Your task to perform on an android device: set default search engine in the chrome app Image 0: 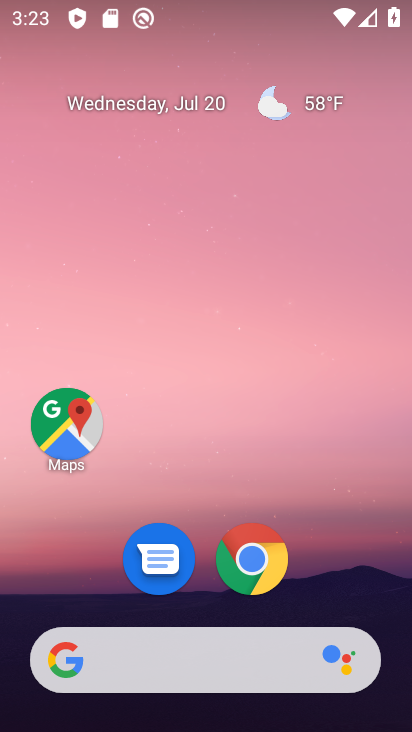
Step 0: click (270, 548)
Your task to perform on an android device: set default search engine in the chrome app Image 1: 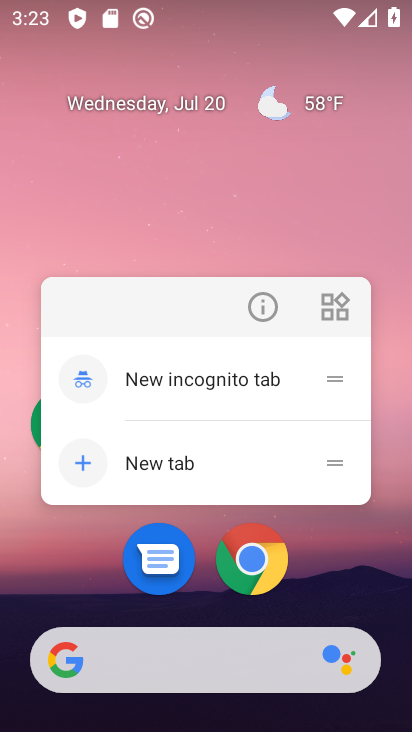
Step 1: click (244, 555)
Your task to perform on an android device: set default search engine in the chrome app Image 2: 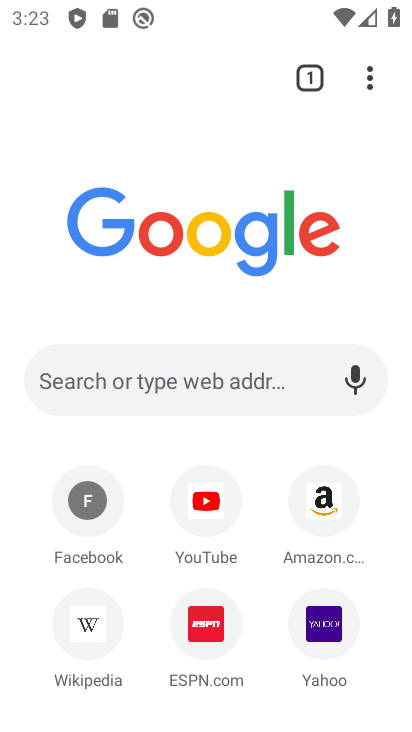
Step 2: drag from (366, 83) to (116, 630)
Your task to perform on an android device: set default search engine in the chrome app Image 3: 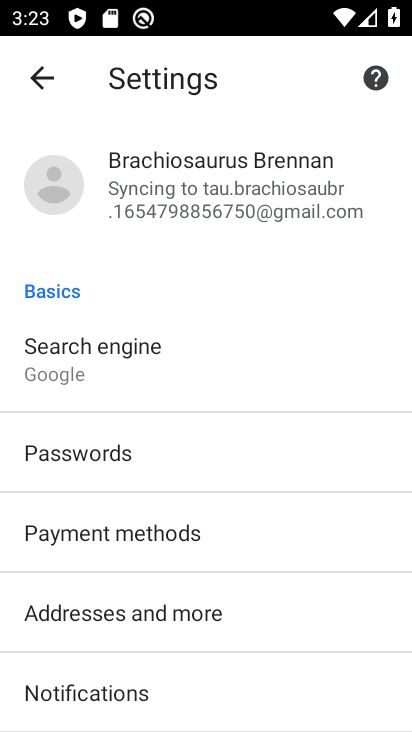
Step 3: click (80, 368)
Your task to perform on an android device: set default search engine in the chrome app Image 4: 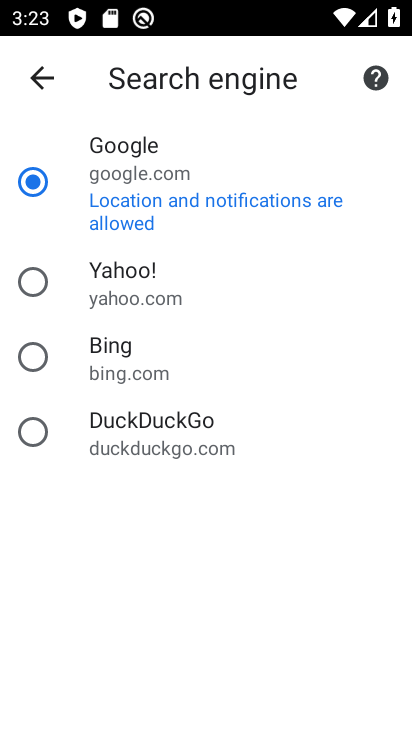
Step 4: click (45, 279)
Your task to perform on an android device: set default search engine in the chrome app Image 5: 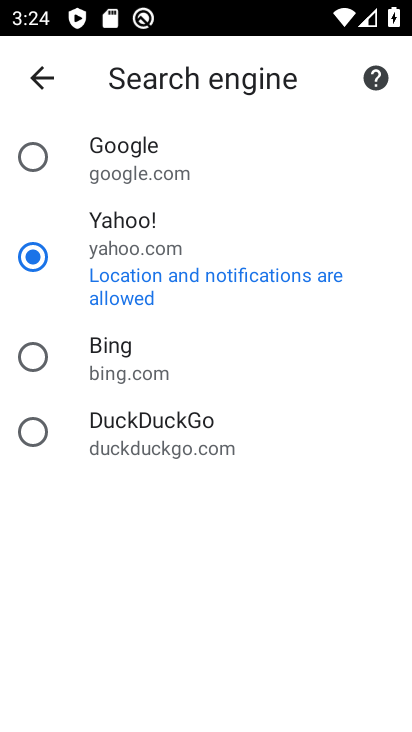
Step 5: task complete